Your task to perform on an android device: turn off location history Image 0: 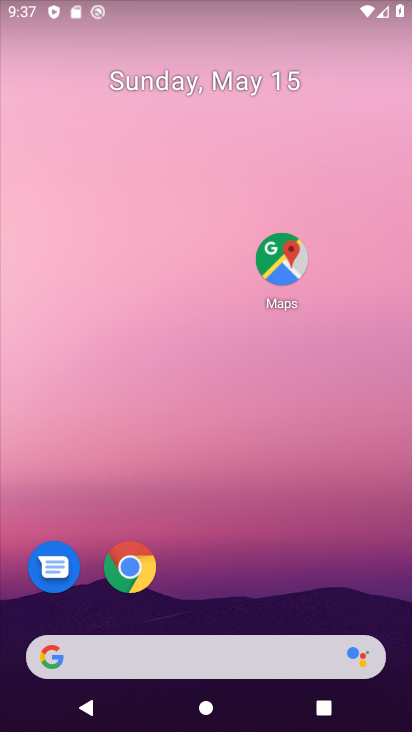
Step 0: drag from (258, 547) to (211, 151)
Your task to perform on an android device: turn off location history Image 1: 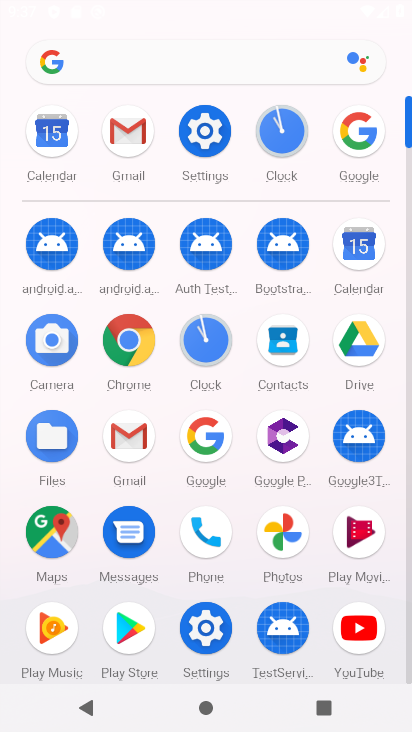
Step 1: click (194, 138)
Your task to perform on an android device: turn off location history Image 2: 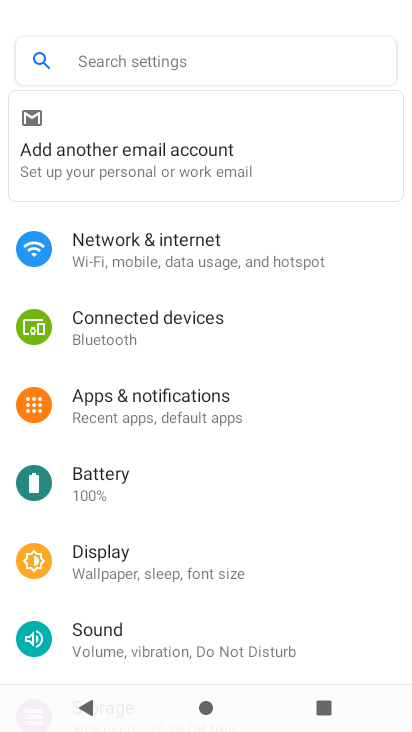
Step 2: drag from (193, 572) to (234, 142)
Your task to perform on an android device: turn off location history Image 3: 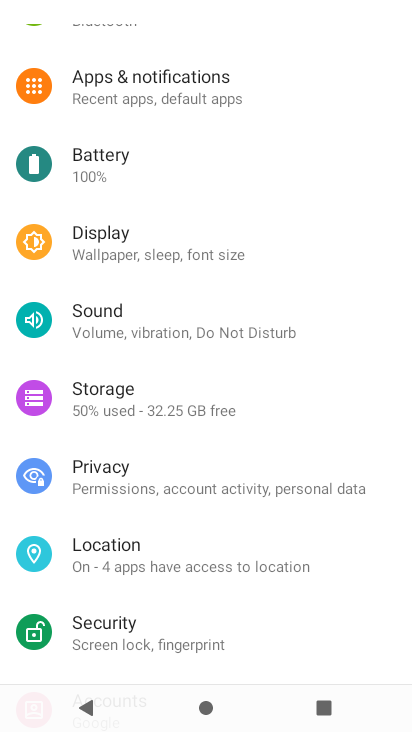
Step 3: click (130, 526)
Your task to perform on an android device: turn off location history Image 4: 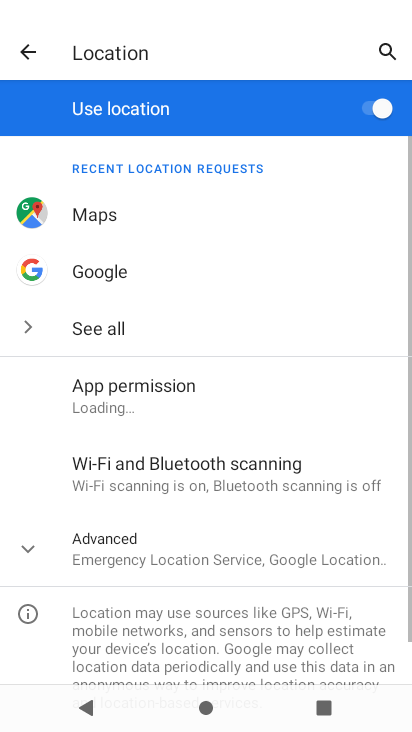
Step 4: click (118, 539)
Your task to perform on an android device: turn off location history Image 5: 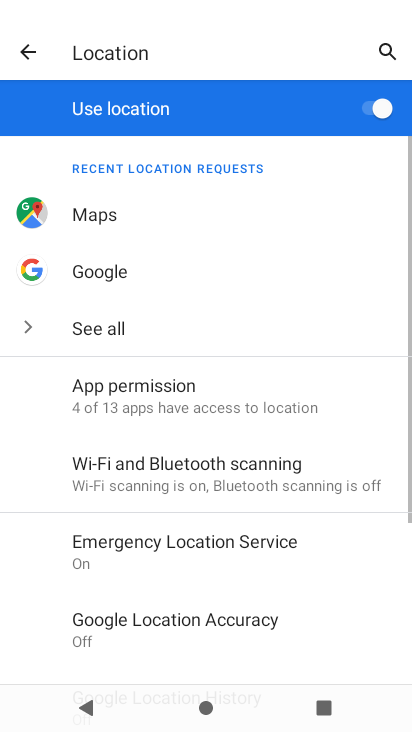
Step 5: drag from (246, 518) to (233, 205)
Your task to perform on an android device: turn off location history Image 6: 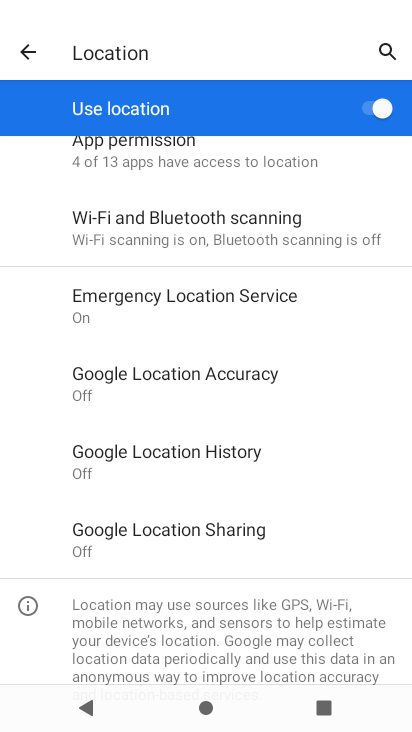
Step 6: click (190, 451)
Your task to perform on an android device: turn off location history Image 7: 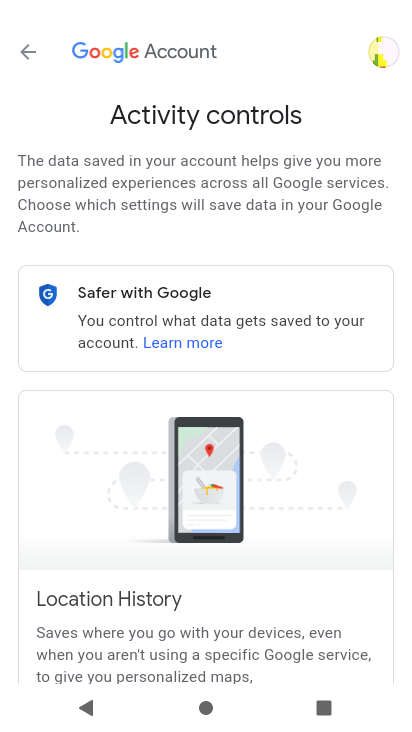
Step 7: task complete